Your task to perform on an android device: toggle show notifications on the lock screen Image 0: 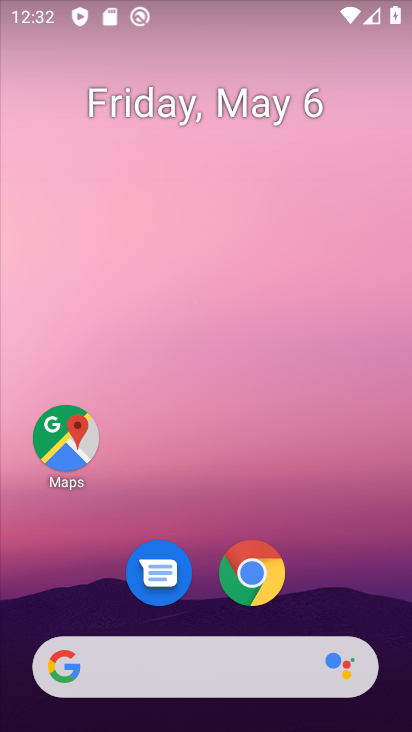
Step 0: drag from (206, 658) to (314, 255)
Your task to perform on an android device: toggle show notifications on the lock screen Image 1: 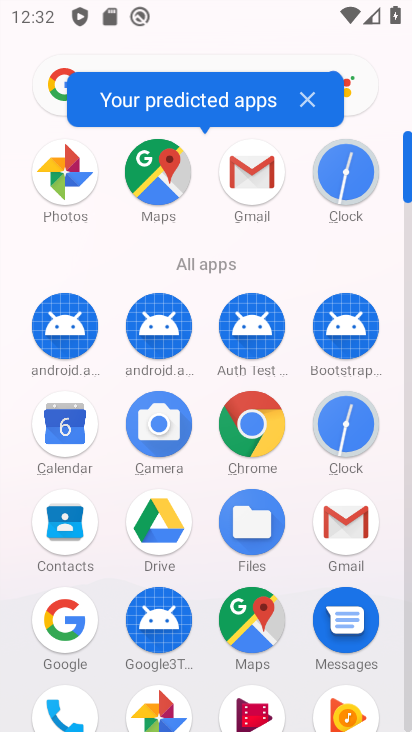
Step 1: drag from (189, 664) to (263, 299)
Your task to perform on an android device: toggle show notifications on the lock screen Image 2: 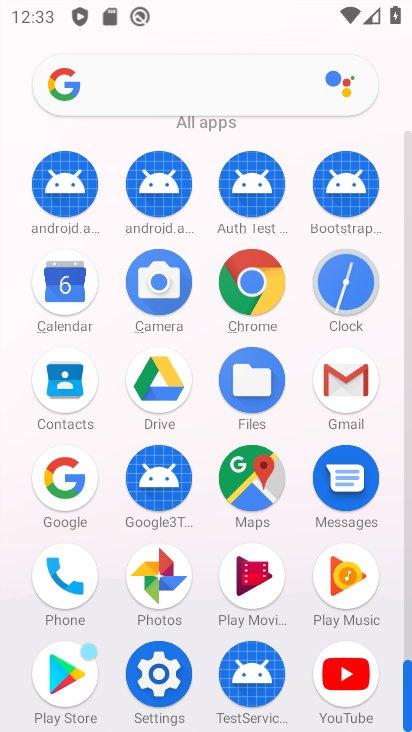
Step 2: click (163, 681)
Your task to perform on an android device: toggle show notifications on the lock screen Image 3: 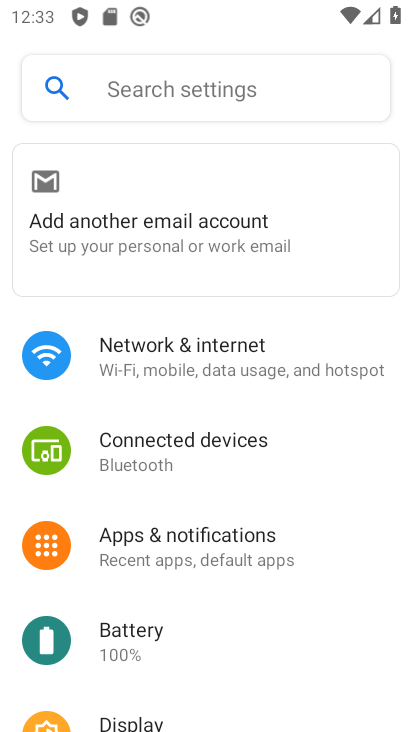
Step 3: click (202, 547)
Your task to perform on an android device: toggle show notifications on the lock screen Image 4: 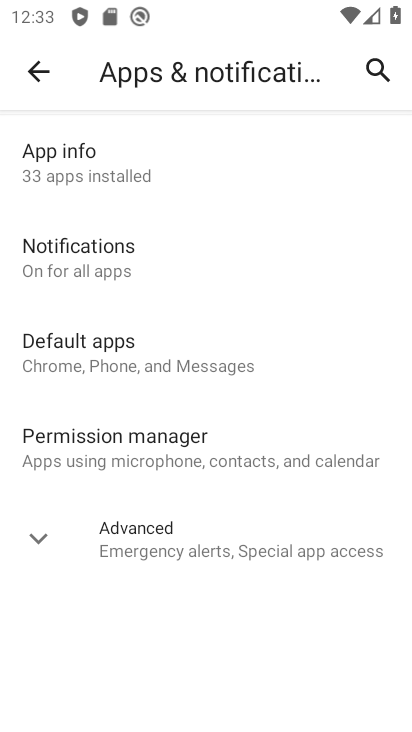
Step 4: click (80, 245)
Your task to perform on an android device: toggle show notifications on the lock screen Image 5: 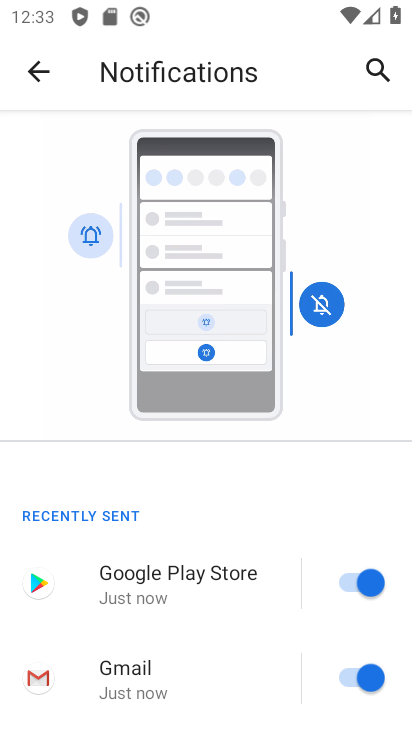
Step 5: drag from (206, 650) to (306, 270)
Your task to perform on an android device: toggle show notifications on the lock screen Image 6: 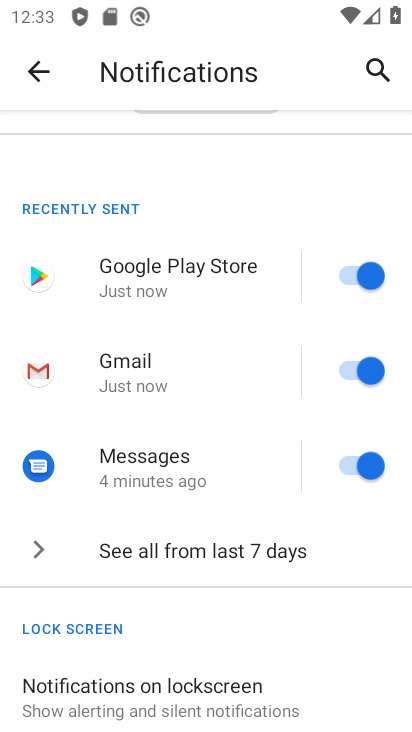
Step 6: drag from (218, 530) to (282, 397)
Your task to perform on an android device: toggle show notifications on the lock screen Image 7: 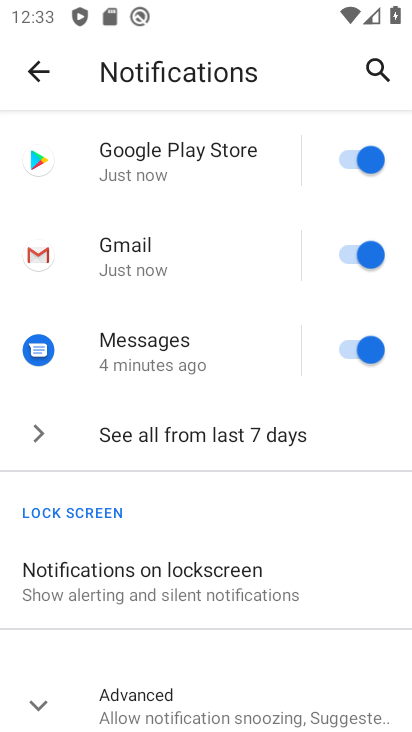
Step 7: click (176, 580)
Your task to perform on an android device: toggle show notifications on the lock screen Image 8: 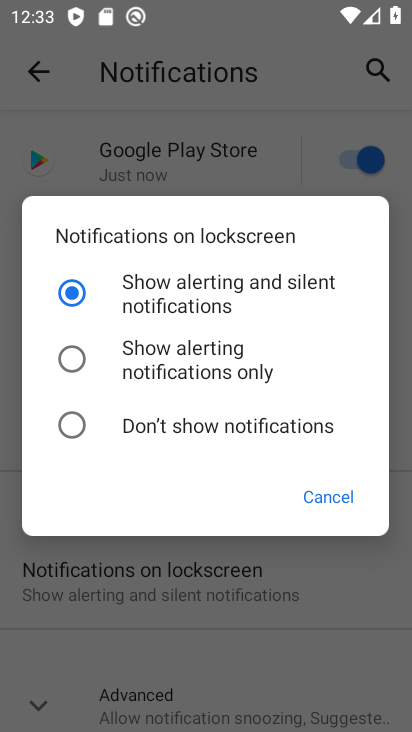
Step 8: click (78, 428)
Your task to perform on an android device: toggle show notifications on the lock screen Image 9: 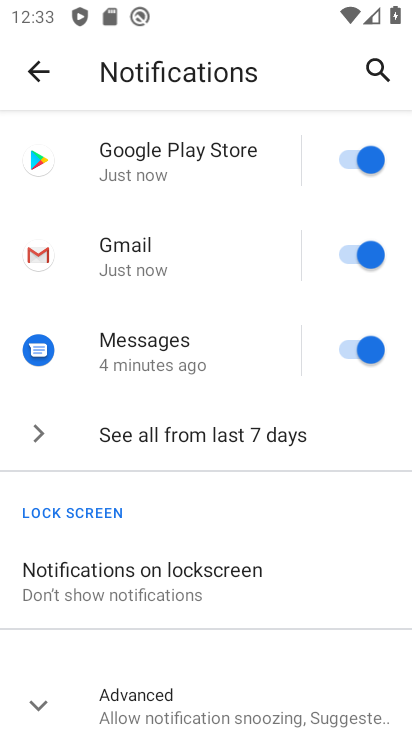
Step 9: task complete